Your task to perform on an android device: Open the Play Movies app and select the watchlist tab. Image 0: 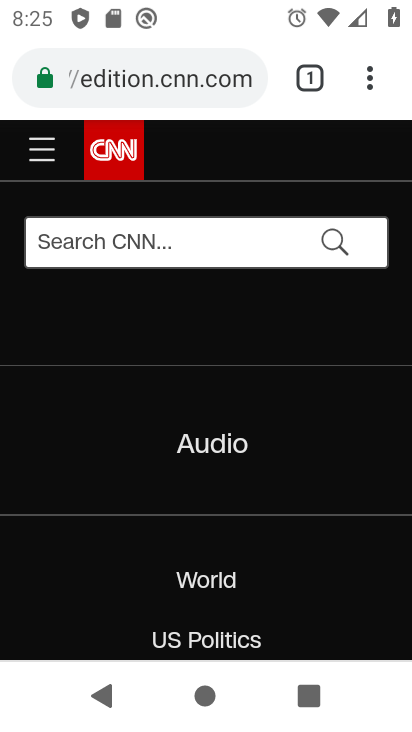
Step 0: press home button
Your task to perform on an android device: Open the Play Movies app and select the watchlist tab. Image 1: 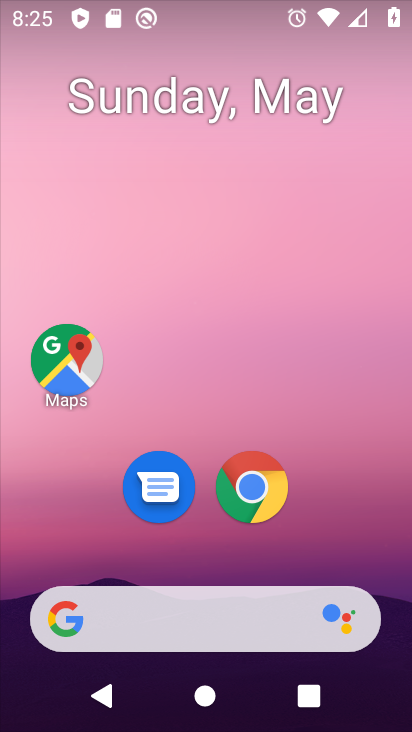
Step 1: drag from (212, 419) to (241, 86)
Your task to perform on an android device: Open the Play Movies app and select the watchlist tab. Image 2: 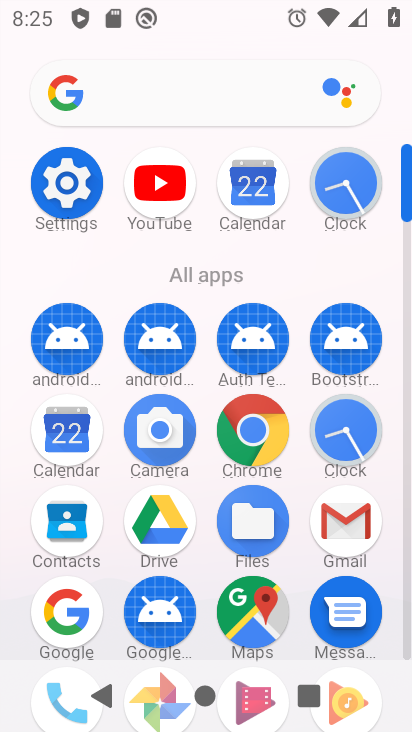
Step 2: drag from (223, 647) to (235, 118)
Your task to perform on an android device: Open the Play Movies app and select the watchlist tab. Image 3: 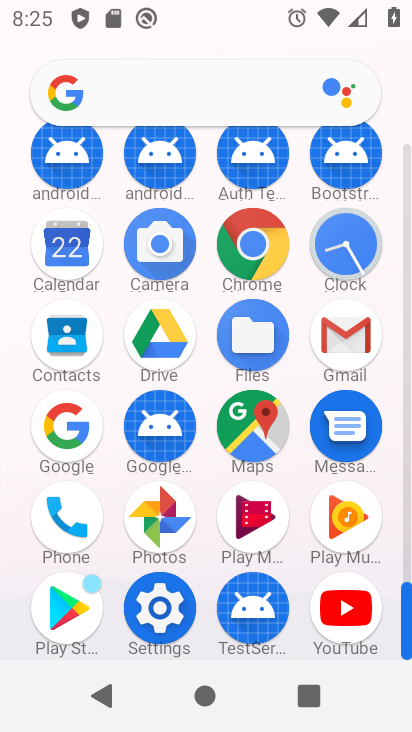
Step 3: click (248, 488)
Your task to perform on an android device: Open the Play Movies app and select the watchlist tab. Image 4: 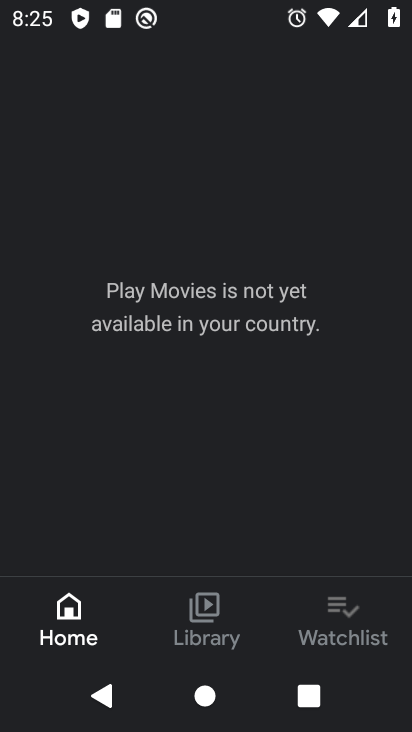
Step 4: click (353, 604)
Your task to perform on an android device: Open the Play Movies app and select the watchlist tab. Image 5: 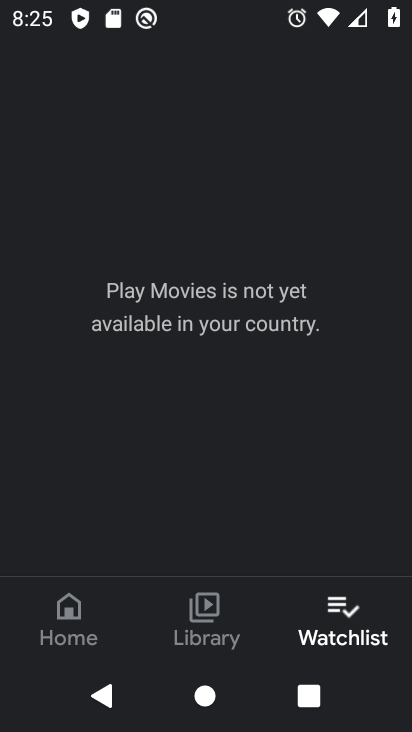
Step 5: click (363, 624)
Your task to perform on an android device: Open the Play Movies app and select the watchlist tab. Image 6: 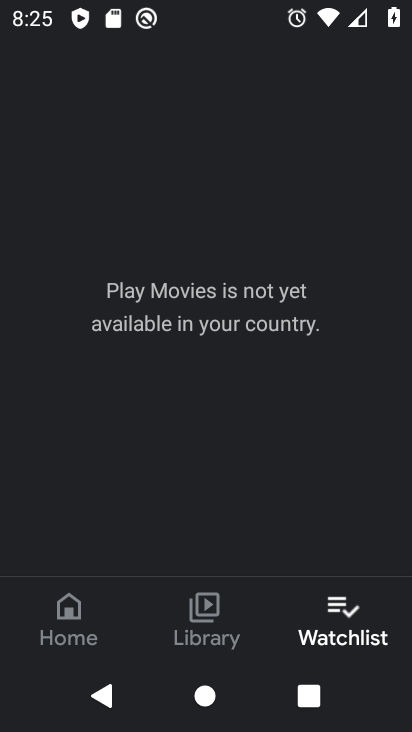
Step 6: task complete